Your task to perform on an android device: What's the weather today? Image 0: 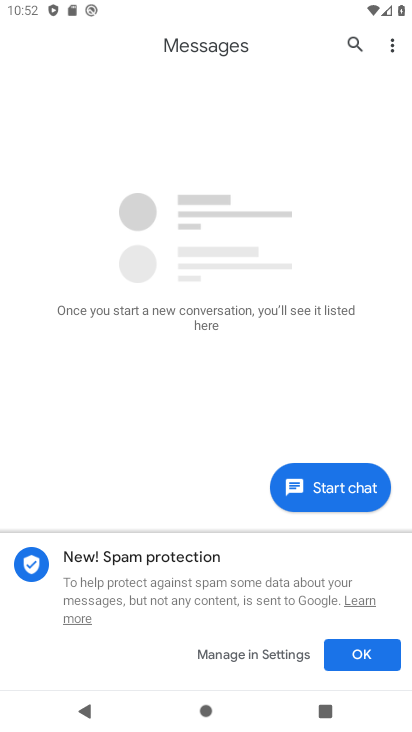
Step 0: press home button
Your task to perform on an android device: What's the weather today? Image 1: 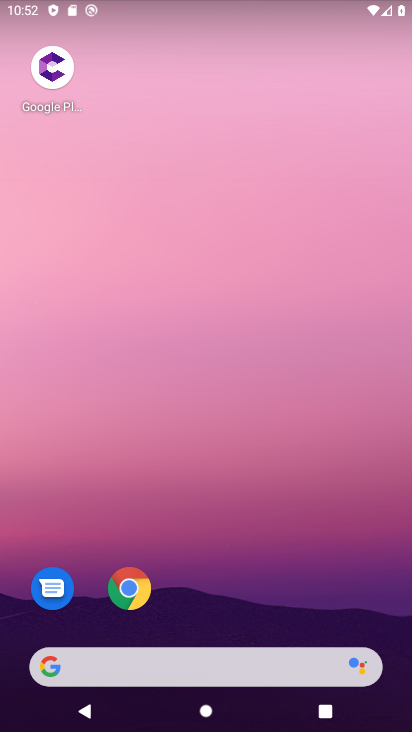
Step 1: click (206, 654)
Your task to perform on an android device: What's the weather today? Image 2: 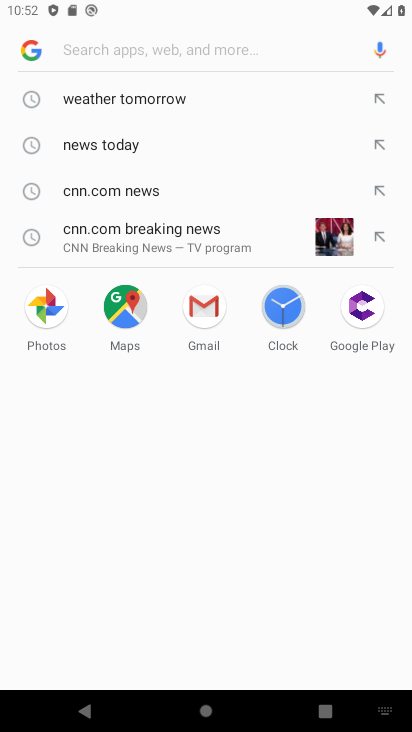
Step 2: type "weather today"
Your task to perform on an android device: What's the weather today? Image 3: 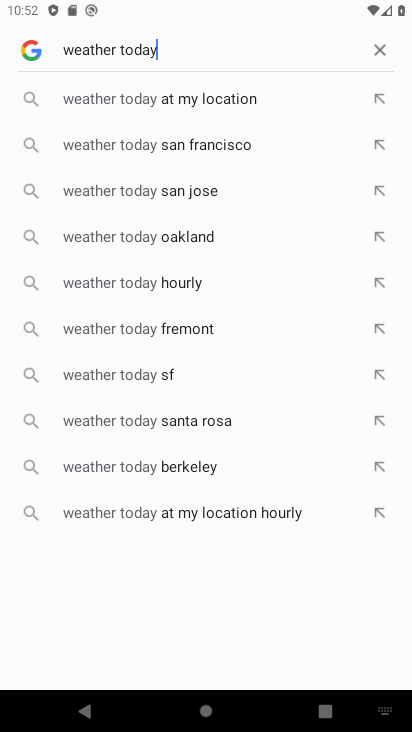
Step 3: click (140, 97)
Your task to perform on an android device: What's the weather today? Image 4: 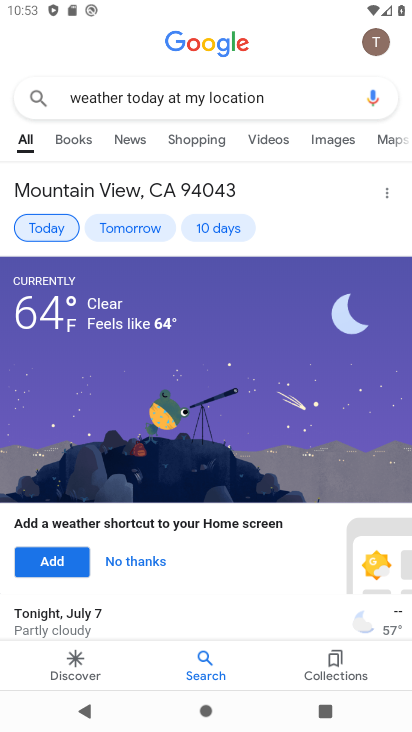
Step 4: task complete